Your task to perform on an android device: When is my next meeting? Image 0: 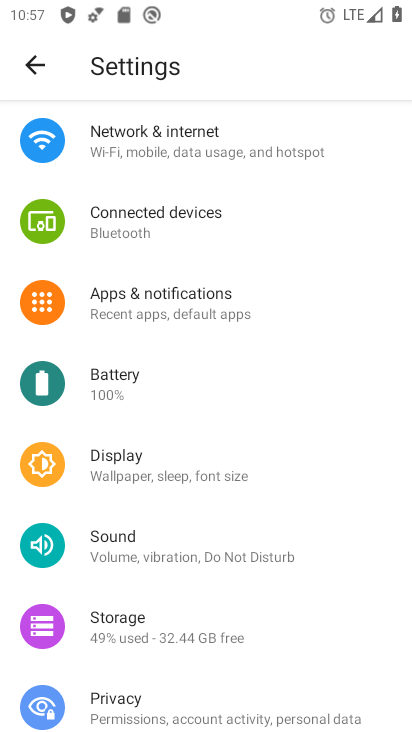
Step 0: press home button
Your task to perform on an android device: When is my next meeting? Image 1: 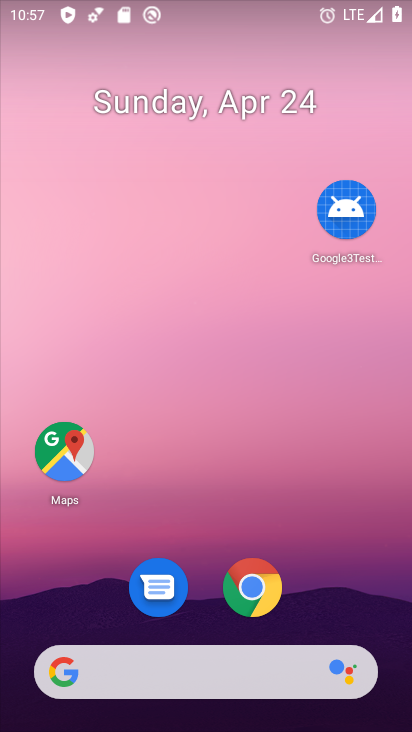
Step 1: drag from (346, 537) to (337, 96)
Your task to perform on an android device: When is my next meeting? Image 2: 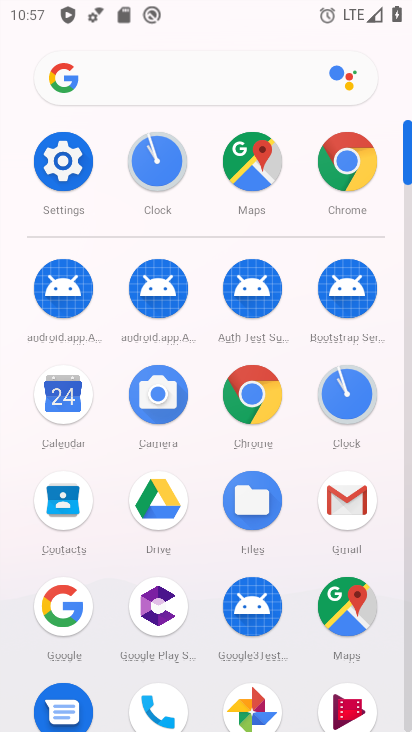
Step 2: click (64, 393)
Your task to perform on an android device: When is my next meeting? Image 3: 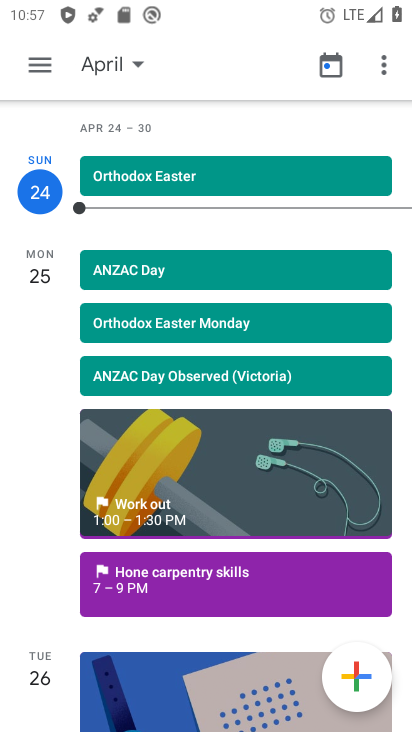
Step 3: drag from (53, 605) to (10, 275)
Your task to perform on an android device: When is my next meeting? Image 4: 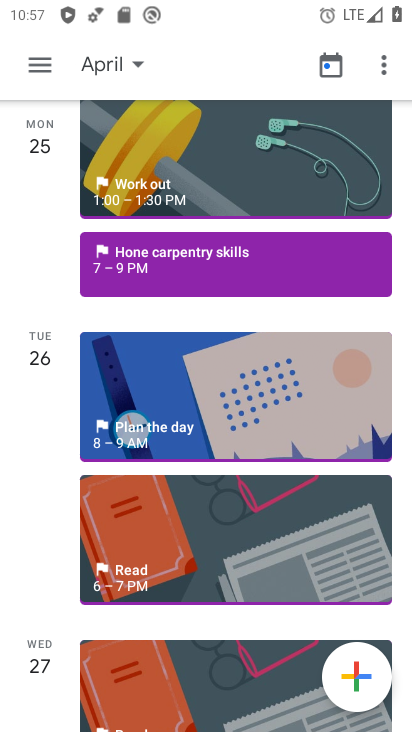
Step 4: drag from (49, 665) to (21, 354)
Your task to perform on an android device: When is my next meeting? Image 5: 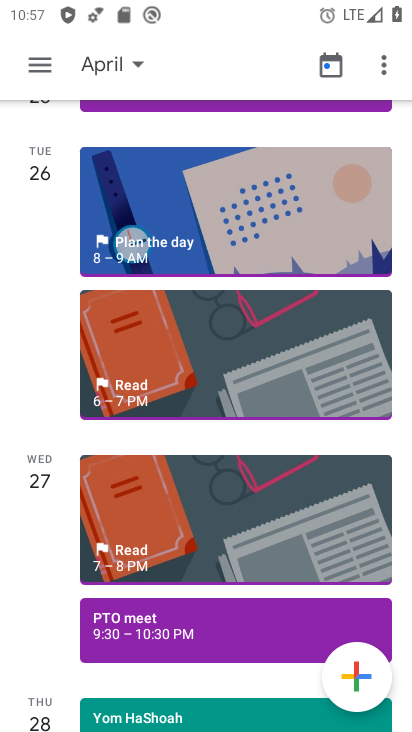
Step 5: click (130, 622)
Your task to perform on an android device: When is my next meeting? Image 6: 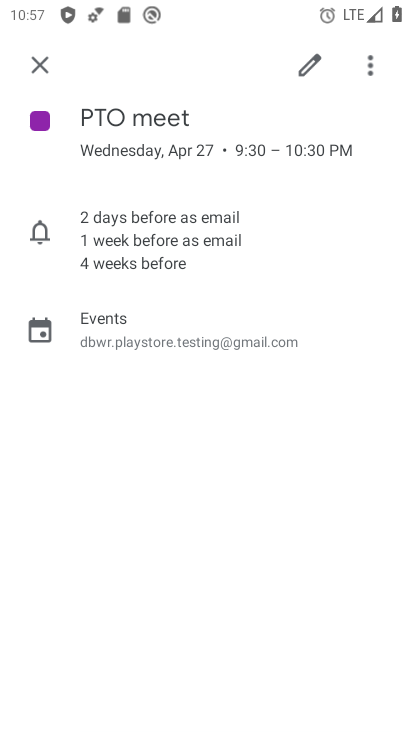
Step 6: task complete